Your task to perform on an android device: Search for sushi restaurants on Maps Image 0: 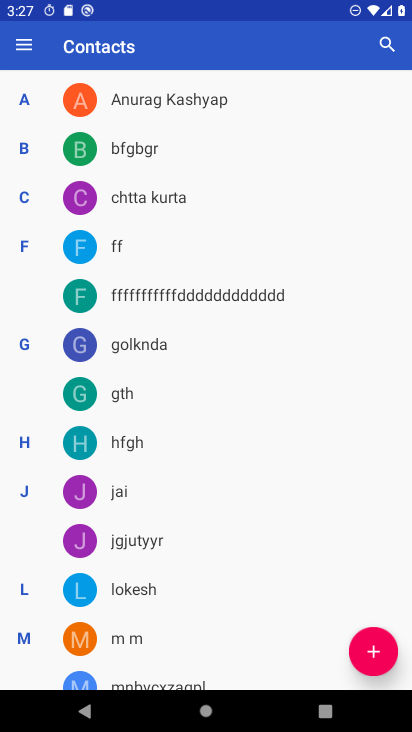
Step 0: press home button
Your task to perform on an android device: Search for sushi restaurants on Maps Image 1: 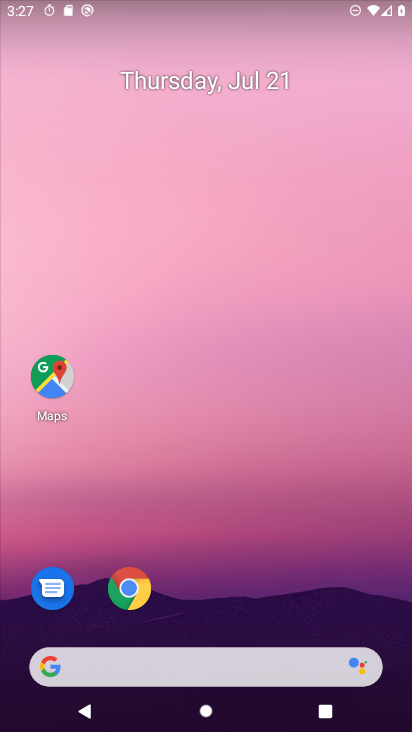
Step 1: drag from (227, 663) to (236, 59)
Your task to perform on an android device: Search for sushi restaurants on Maps Image 2: 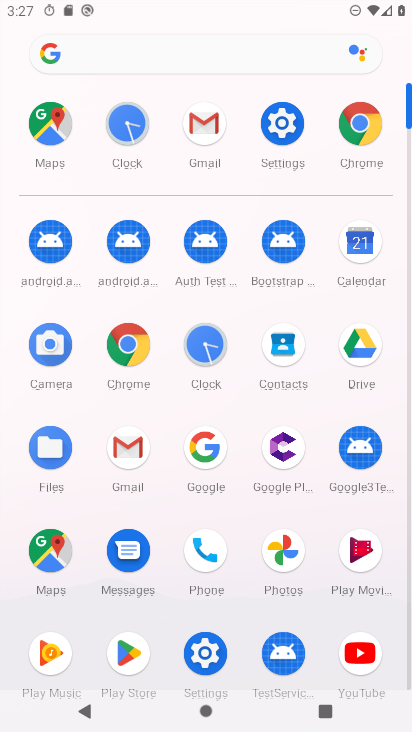
Step 2: click (59, 552)
Your task to perform on an android device: Search for sushi restaurants on Maps Image 3: 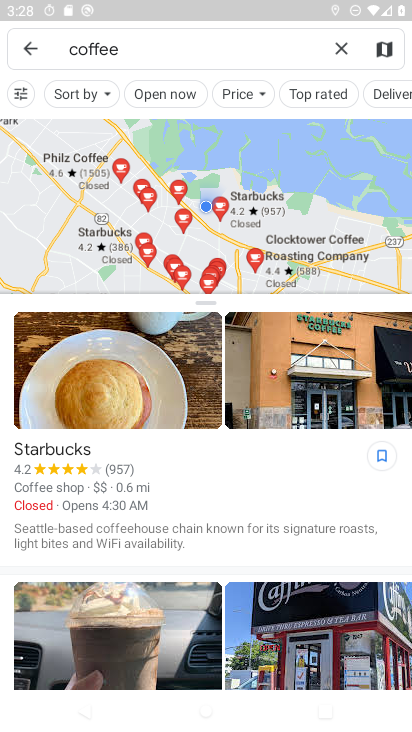
Step 3: click (342, 57)
Your task to perform on an android device: Search for sushi restaurants on Maps Image 4: 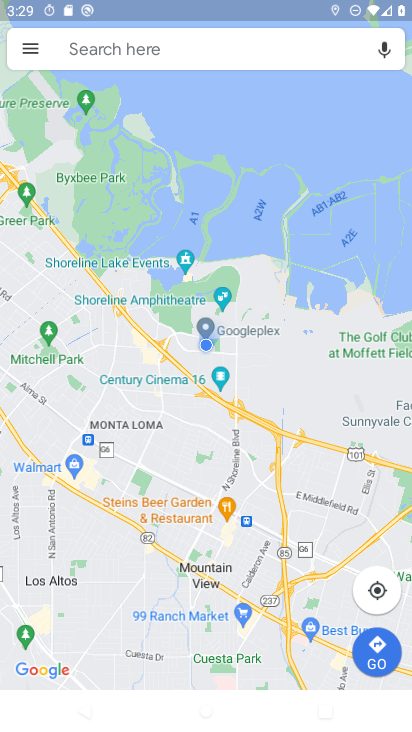
Step 4: click (191, 50)
Your task to perform on an android device: Search for sushi restaurants on Maps Image 5: 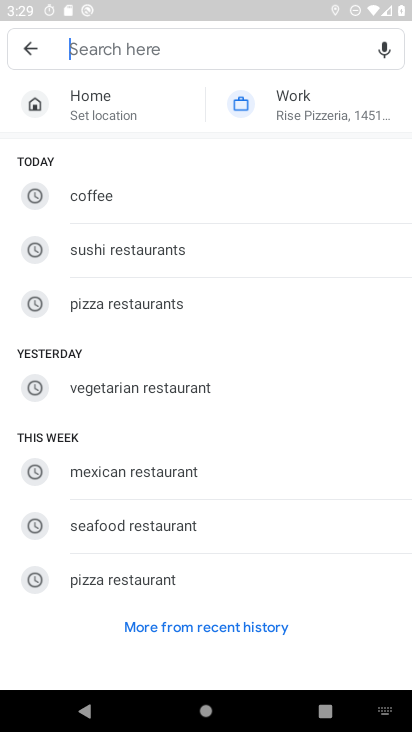
Step 5: click (128, 251)
Your task to perform on an android device: Search for sushi restaurants on Maps Image 6: 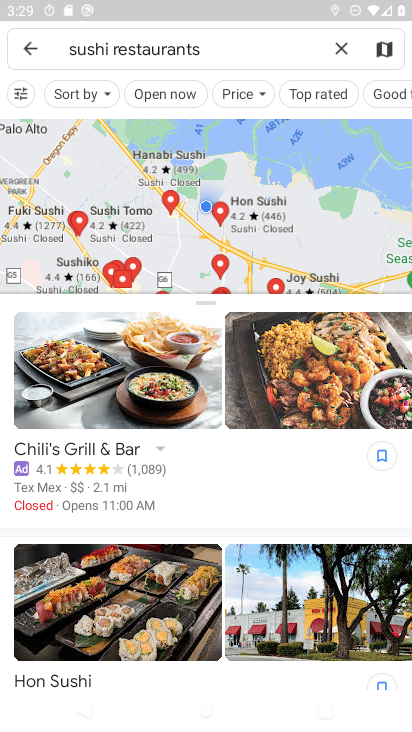
Step 6: task complete